Your task to perform on an android device: Turn on the flashlight Image 0: 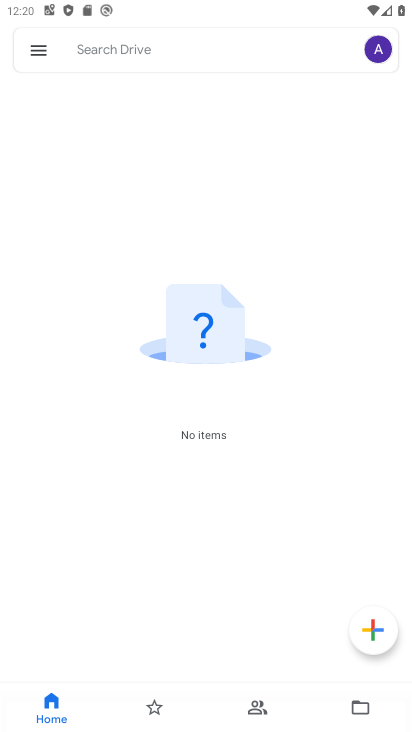
Step 0: task impossible